Your task to perform on an android device: Go to display settings Image 0: 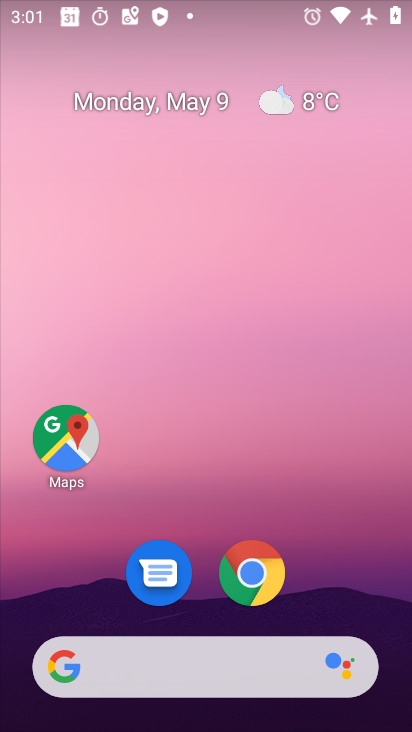
Step 0: drag from (225, 628) to (290, 132)
Your task to perform on an android device: Go to display settings Image 1: 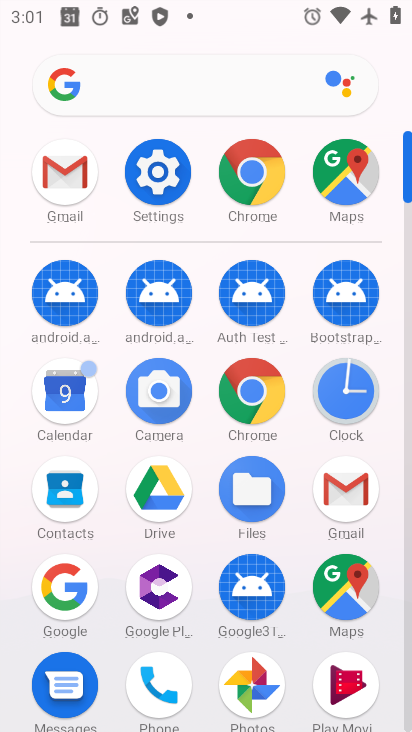
Step 1: click (156, 182)
Your task to perform on an android device: Go to display settings Image 2: 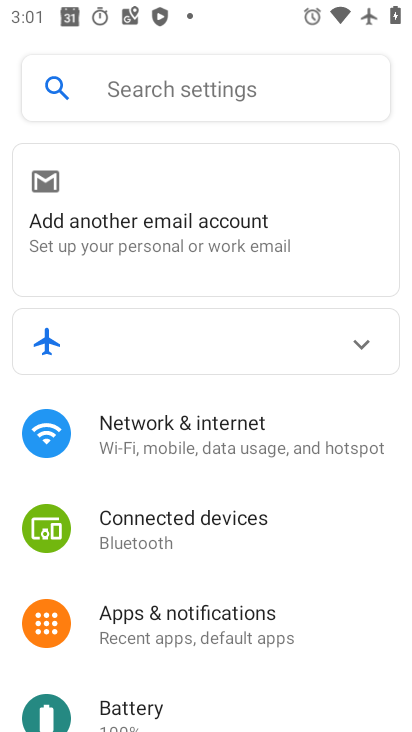
Step 2: drag from (165, 663) to (268, 229)
Your task to perform on an android device: Go to display settings Image 3: 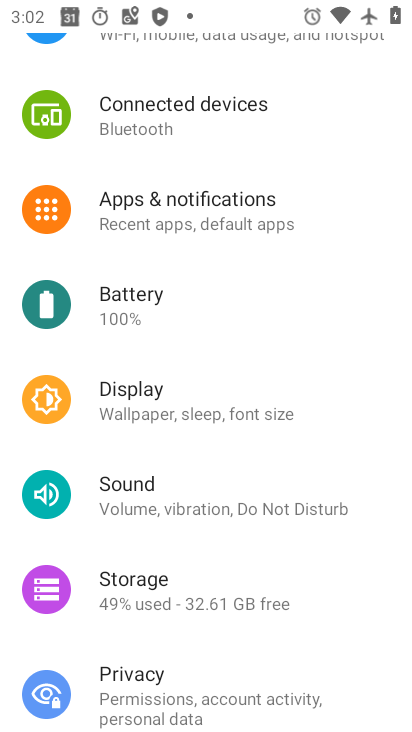
Step 3: click (193, 412)
Your task to perform on an android device: Go to display settings Image 4: 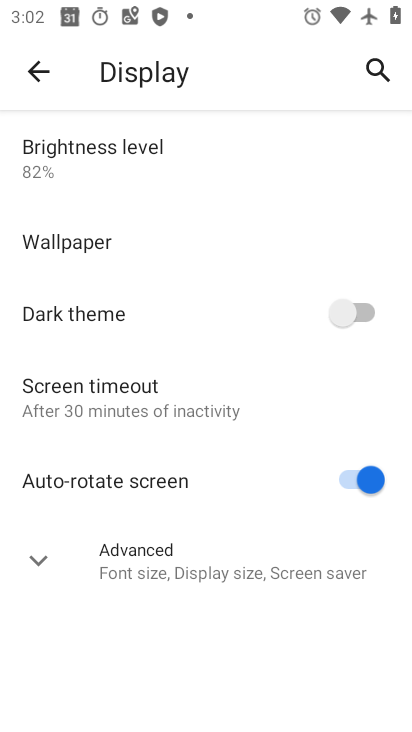
Step 4: task complete